Your task to perform on an android device: Open Google Image 0: 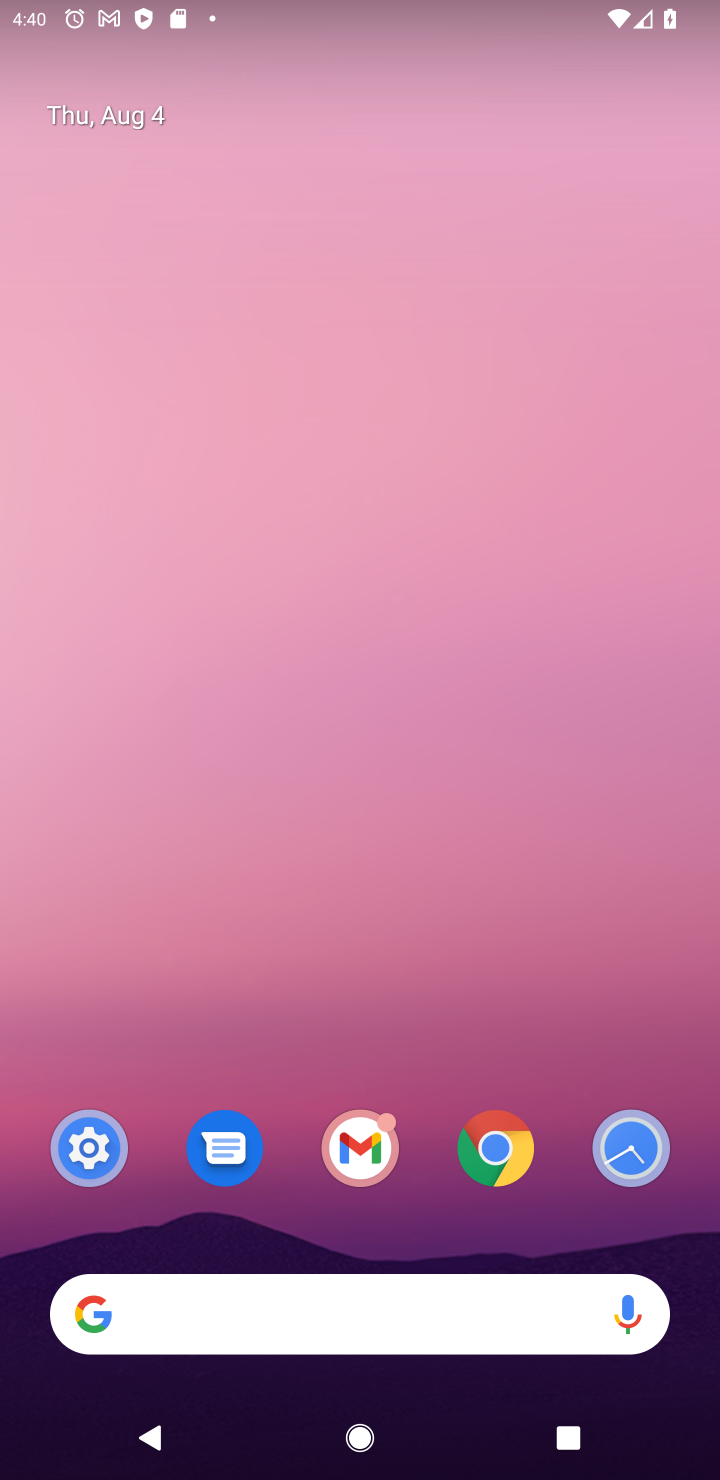
Step 0: click (493, 1147)
Your task to perform on an android device: Open Google Image 1: 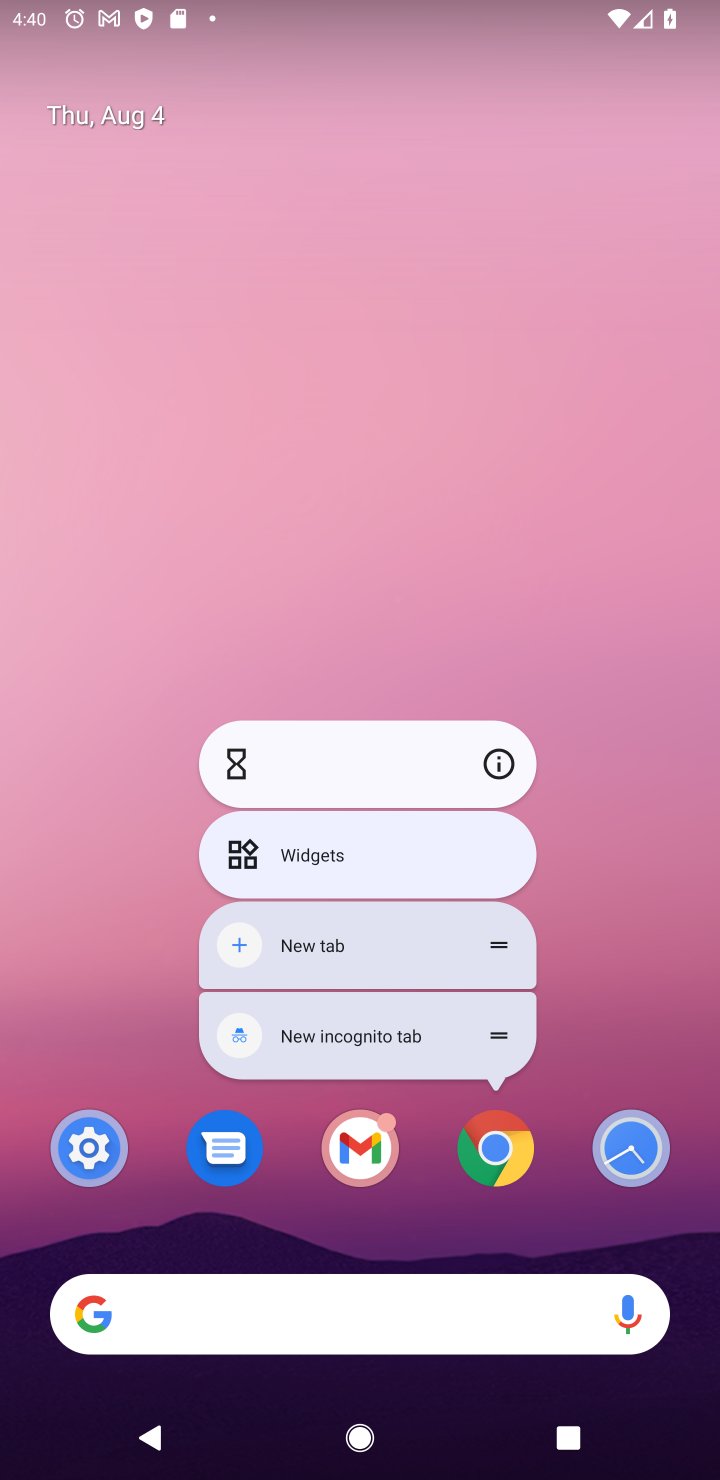
Step 1: click (498, 1148)
Your task to perform on an android device: Open Google Image 2: 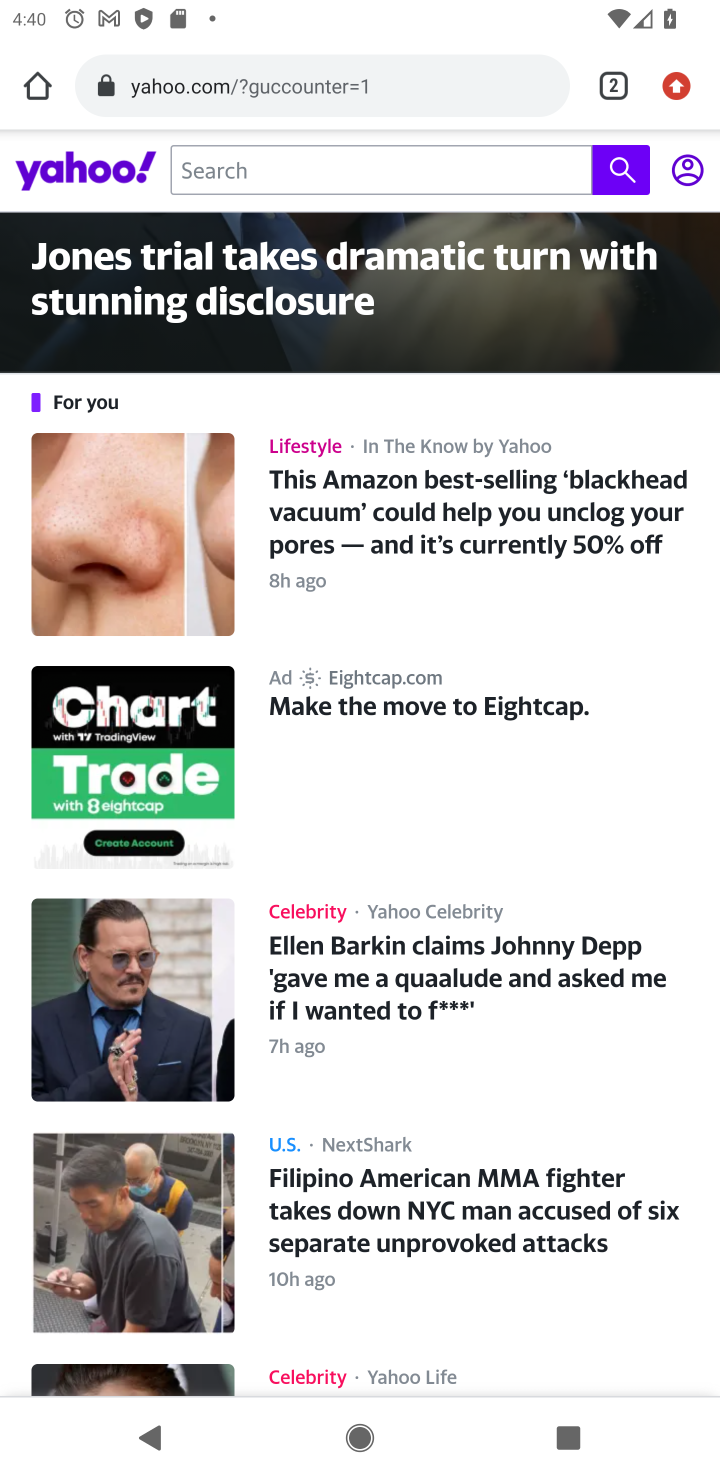
Step 2: task complete